Your task to perform on an android device: toggle wifi Image 0: 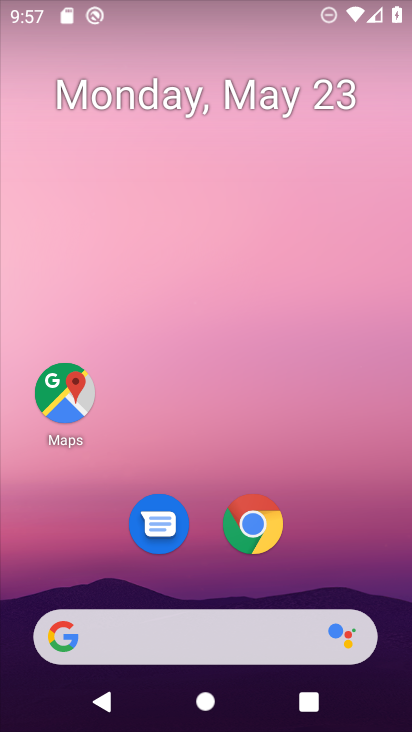
Step 0: drag from (239, 429) to (206, 15)
Your task to perform on an android device: toggle wifi Image 1: 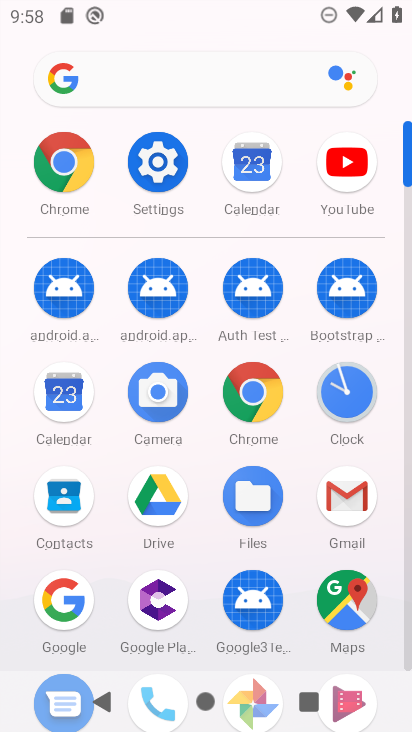
Step 1: click (159, 163)
Your task to perform on an android device: toggle wifi Image 2: 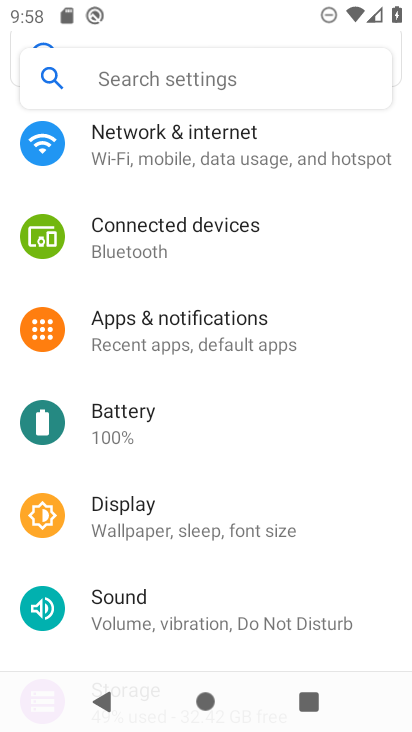
Step 2: click (233, 139)
Your task to perform on an android device: toggle wifi Image 3: 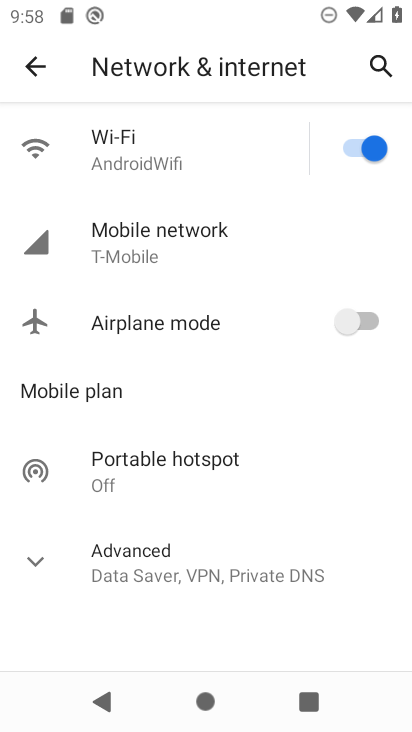
Step 3: click (349, 143)
Your task to perform on an android device: toggle wifi Image 4: 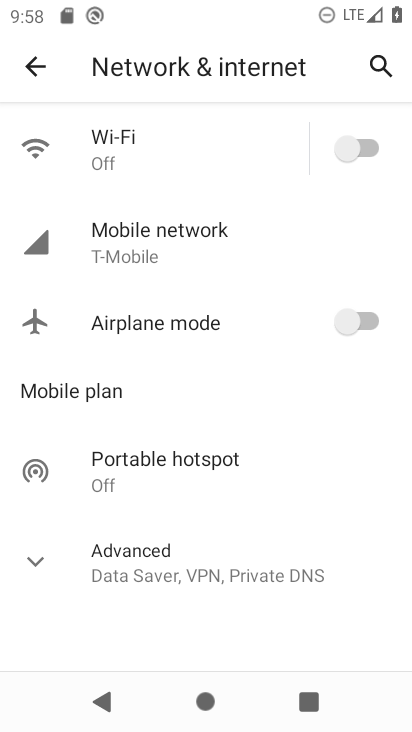
Step 4: task complete